Your task to perform on an android device: Open settings Image 0: 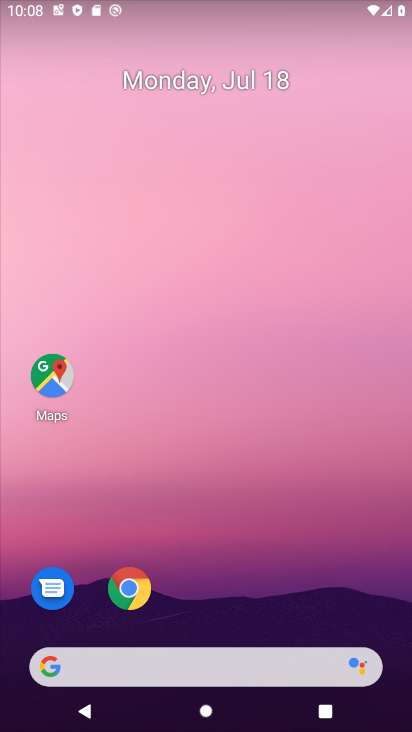
Step 0: drag from (234, 683) to (234, 94)
Your task to perform on an android device: Open settings Image 1: 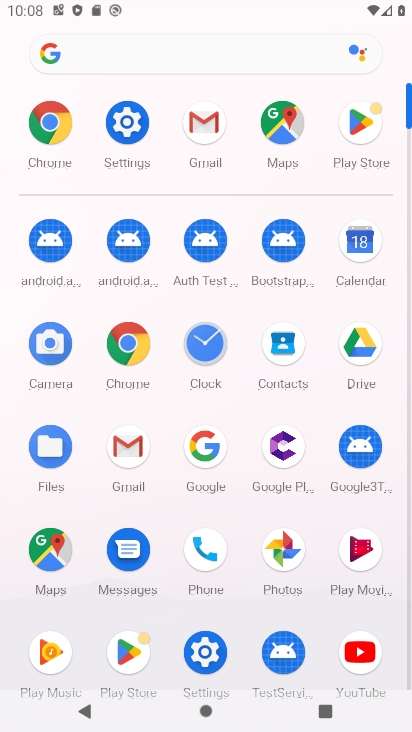
Step 1: click (128, 128)
Your task to perform on an android device: Open settings Image 2: 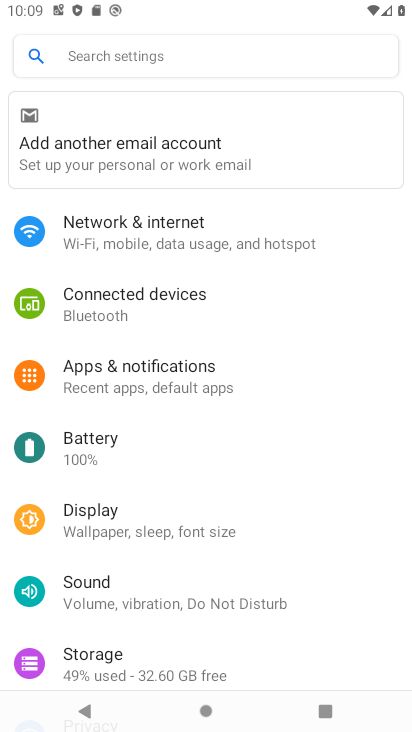
Step 2: task complete